Your task to perform on an android device: change your default location settings in chrome Image 0: 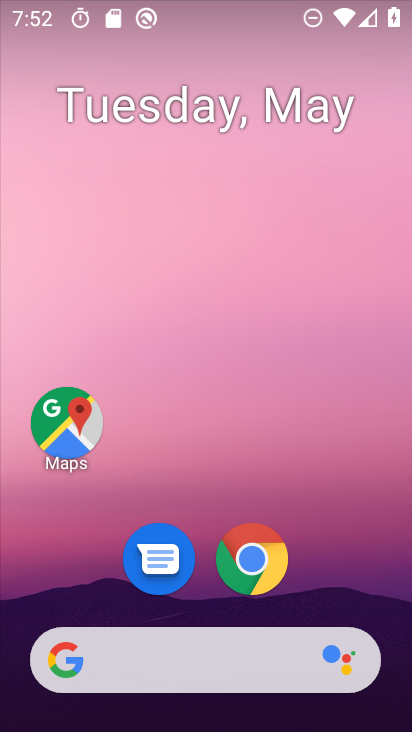
Step 0: drag from (362, 464) to (307, 127)
Your task to perform on an android device: change your default location settings in chrome Image 1: 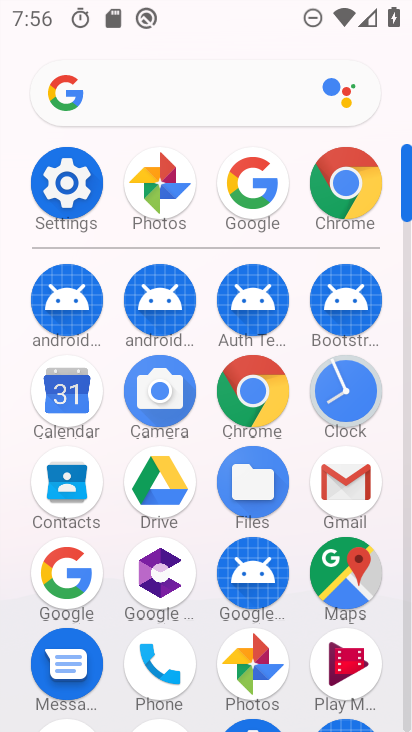
Step 1: click (254, 390)
Your task to perform on an android device: change your default location settings in chrome Image 2: 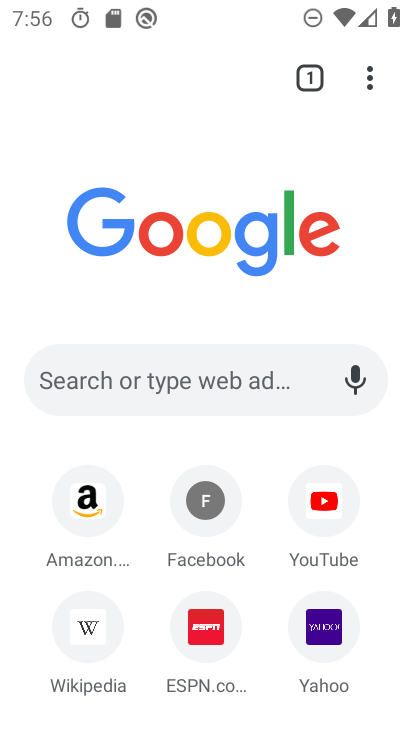
Step 2: click (364, 71)
Your task to perform on an android device: change your default location settings in chrome Image 3: 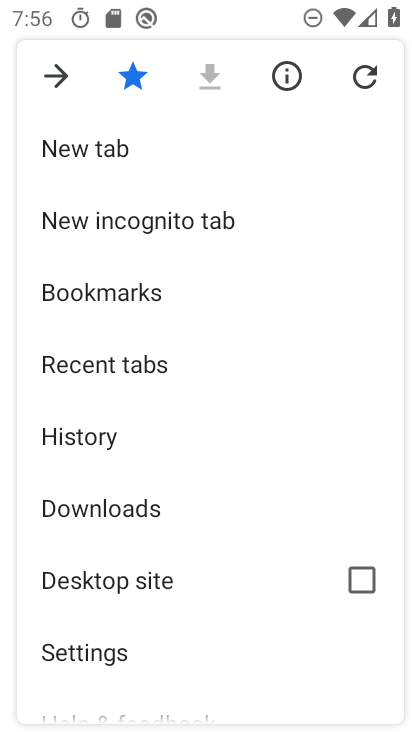
Step 3: click (180, 650)
Your task to perform on an android device: change your default location settings in chrome Image 4: 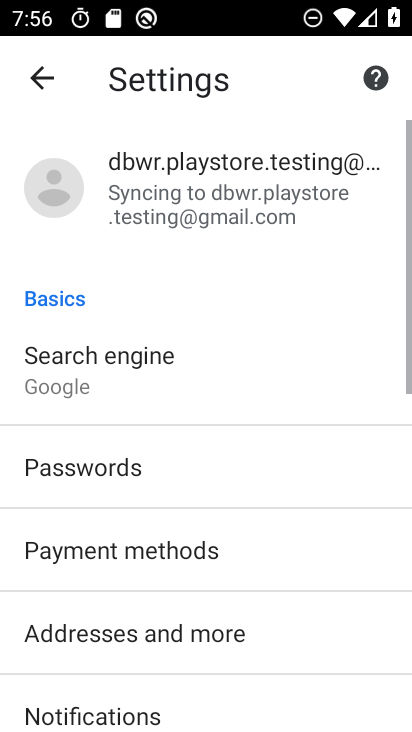
Step 4: drag from (180, 650) to (260, 169)
Your task to perform on an android device: change your default location settings in chrome Image 5: 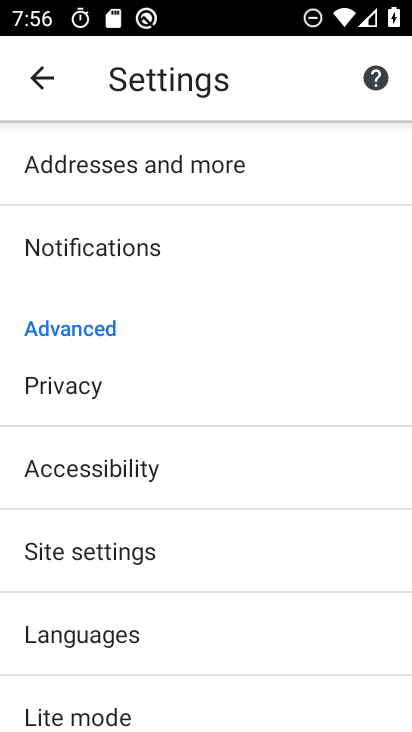
Step 5: drag from (217, 234) to (167, 719)
Your task to perform on an android device: change your default location settings in chrome Image 6: 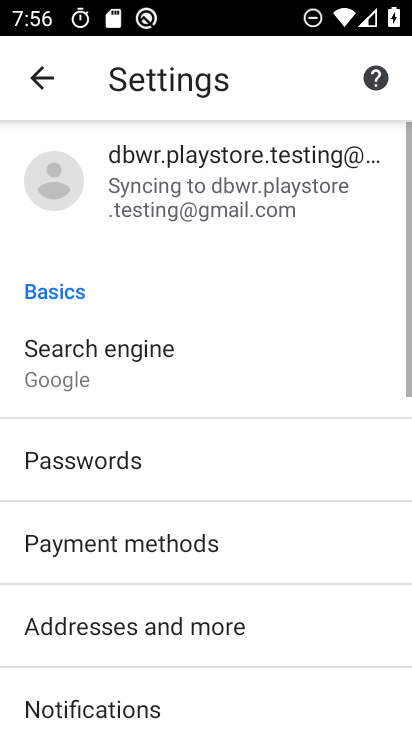
Step 6: click (211, 364)
Your task to perform on an android device: change your default location settings in chrome Image 7: 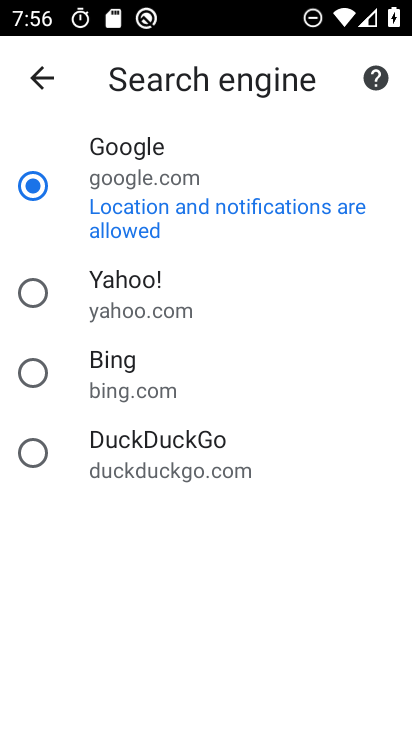
Step 7: click (117, 362)
Your task to perform on an android device: change your default location settings in chrome Image 8: 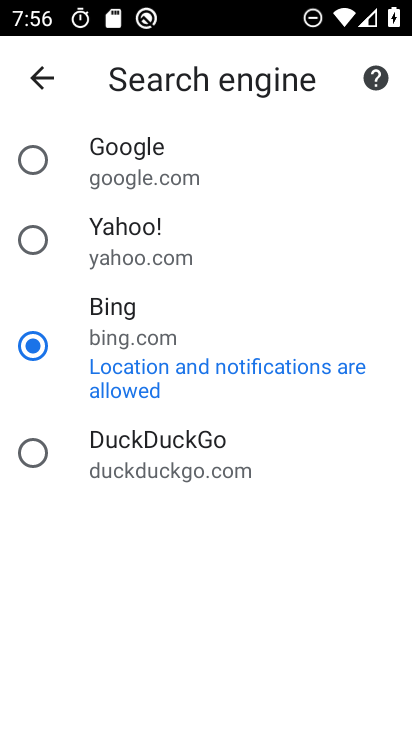
Step 8: task complete